Your task to perform on an android device: Go to display settings Image 0: 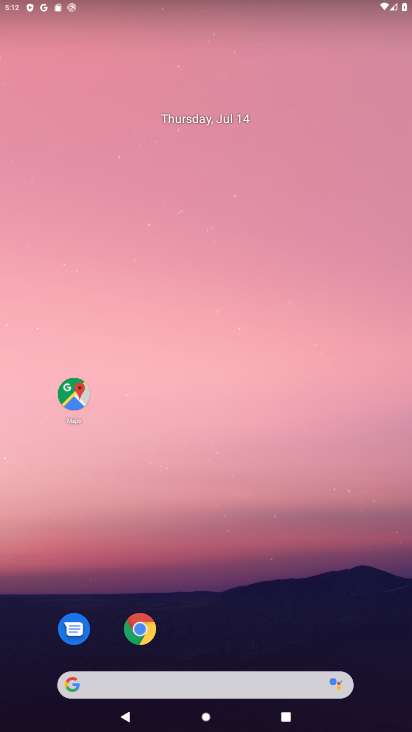
Step 0: drag from (222, 639) to (253, 92)
Your task to perform on an android device: Go to display settings Image 1: 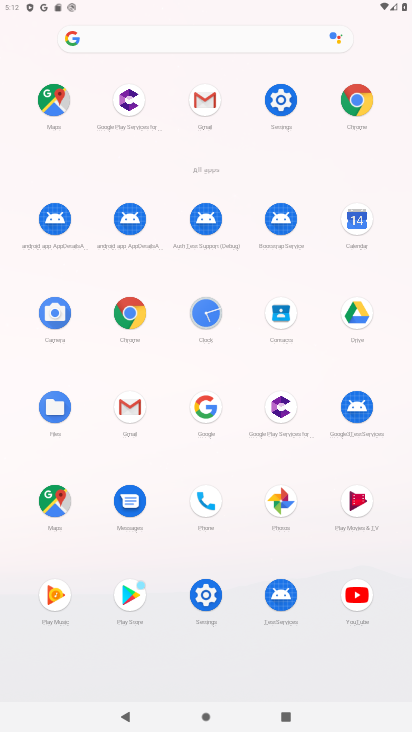
Step 1: click (290, 98)
Your task to perform on an android device: Go to display settings Image 2: 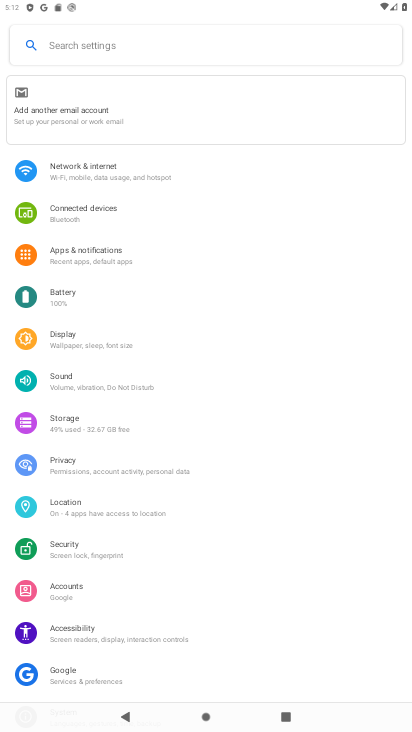
Step 2: click (73, 335)
Your task to perform on an android device: Go to display settings Image 3: 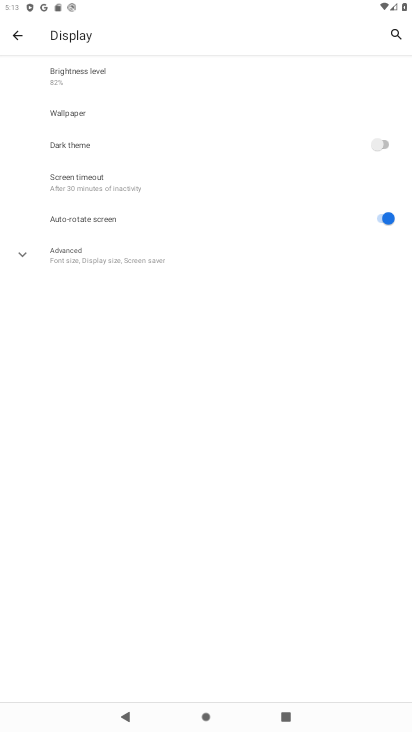
Step 3: task complete